Your task to perform on an android device: open chrome and create a bookmark for the current page Image 0: 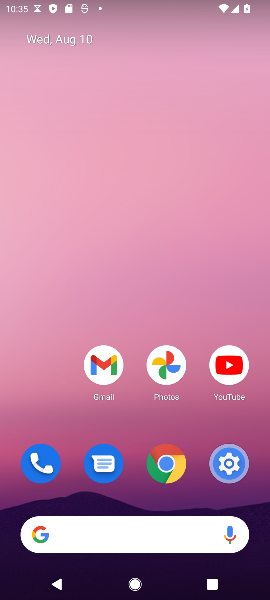
Step 0: click (159, 457)
Your task to perform on an android device: open chrome and create a bookmark for the current page Image 1: 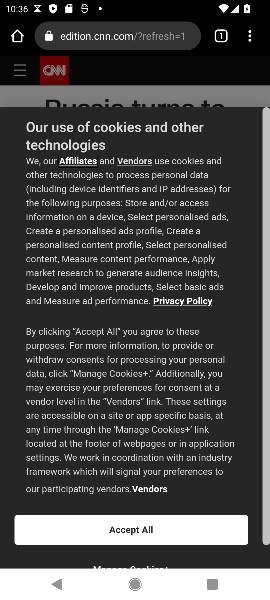
Step 1: click (256, 37)
Your task to perform on an android device: open chrome and create a bookmark for the current page Image 2: 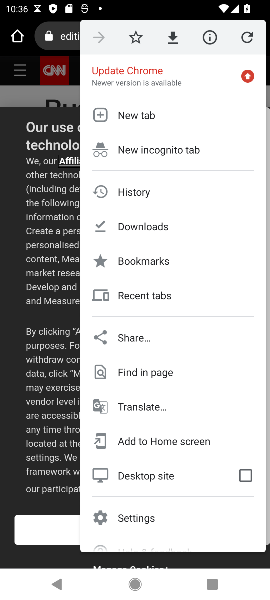
Step 2: click (132, 38)
Your task to perform on an android device: open chrome and create a bookmark for the current page Image 3: 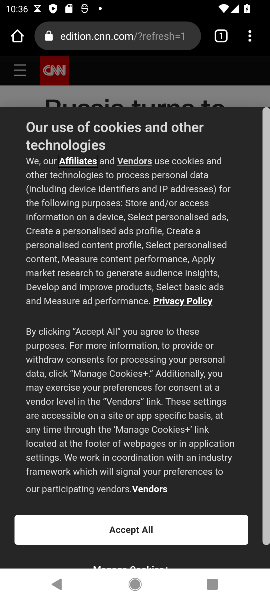
Step 3: task complete